Your task to perform on an android device: toggle improve location accuracy Image 0: 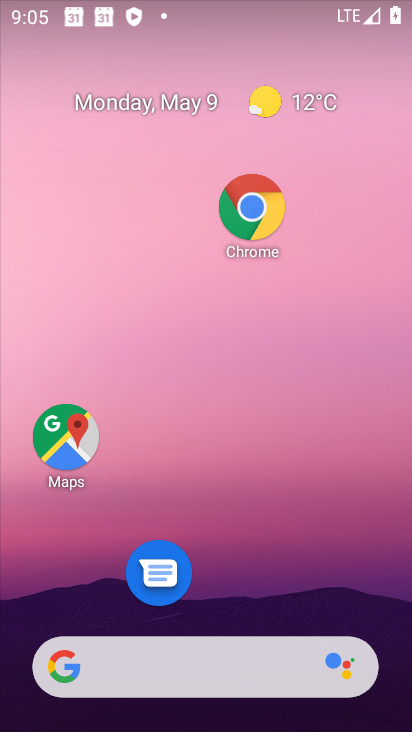
Step 0: click (282, 59)
Your task to perform on an android device: toggle improve location accuracy Image 1: 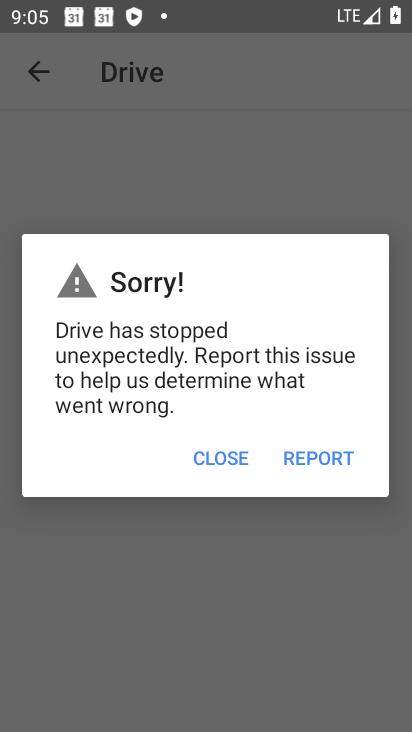
Step 1: press home button
Your task to perform on an android device: toggle improve location accuracy Image 2: 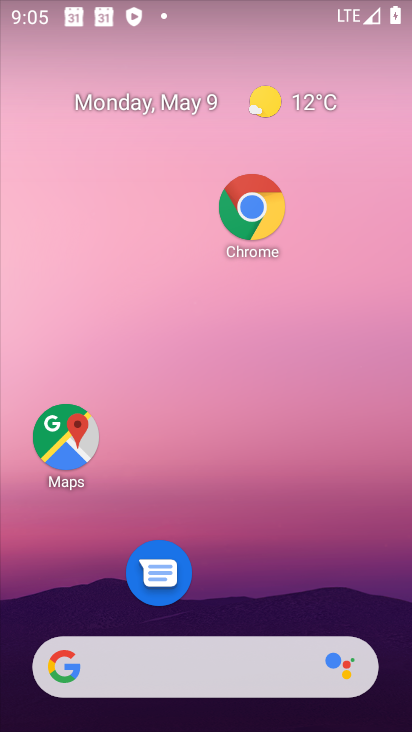
Step 2: drag from (263, 593) to (328, 121)
Your task to perform on an android device: toggle improve location accuracy Image 3: 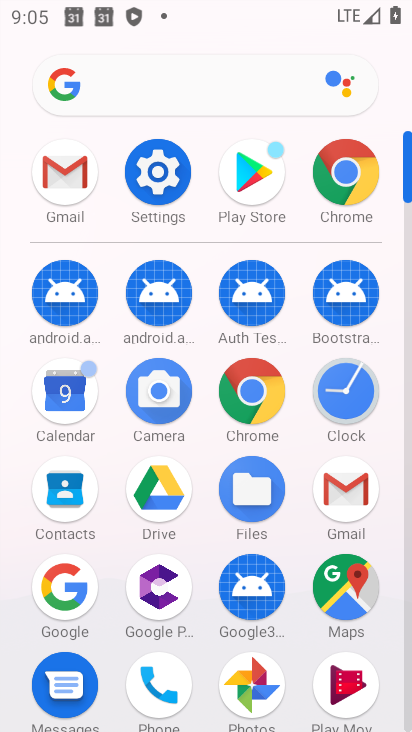
Step 3: click (146, 194)
Your task to perform on an android device: toggle improve location accuracy Image 4: 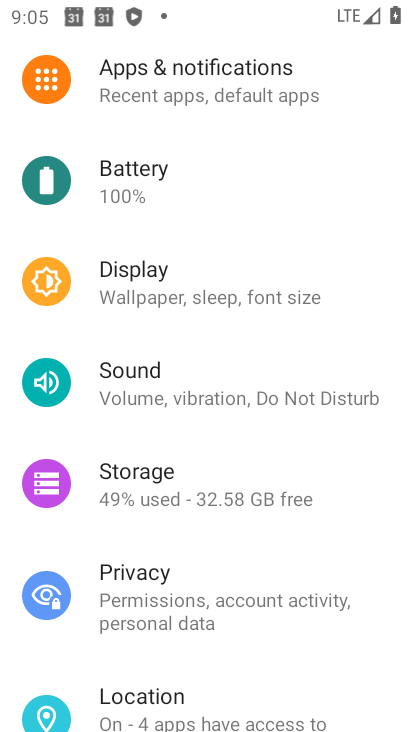
Step 4: drag from (279, 567) to (289, 313)
Your task to perform on an android device: toggle improve location accuracy Image 5: 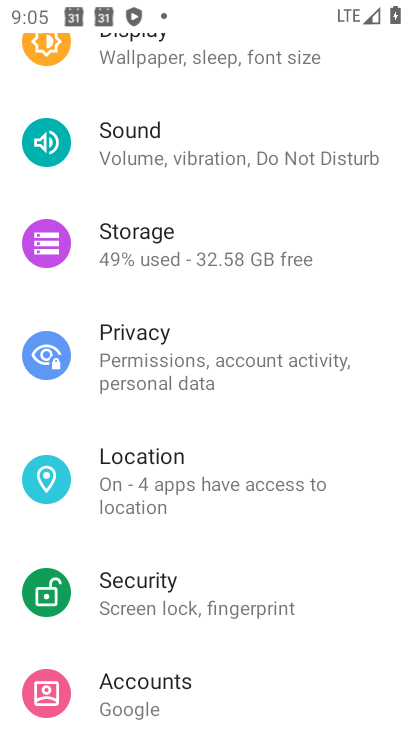
Step 5: click (253, 483)
Your task to perform on an android device: toggle improve location accuracy Image 6: 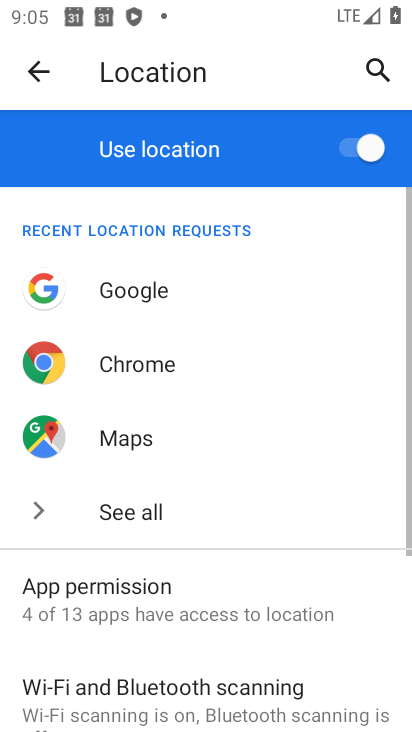
Step 6: drag from (263, 611) to (257, 398)
Your task to perform on an android device: toggle improve location accuracy Image 7: 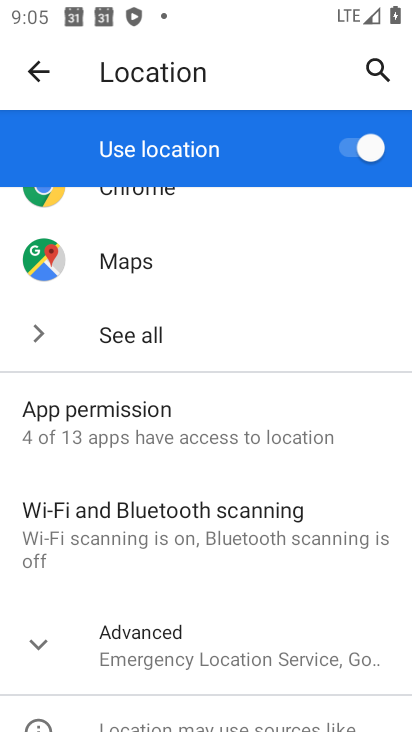
Step 7: click (265, 672)
Your task to perform on an android device: toggle improve location accuracy Image 8: 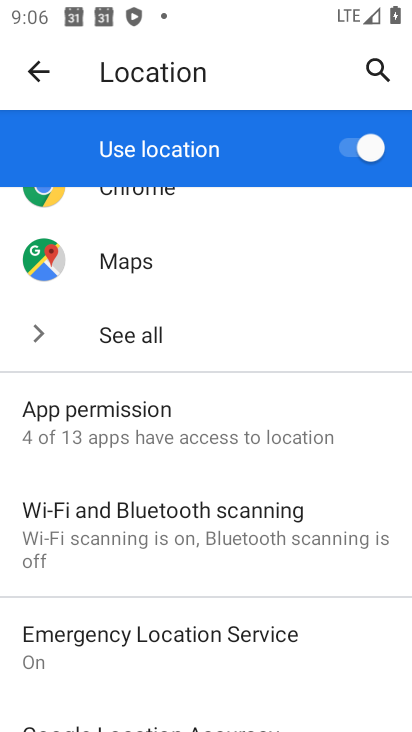
Step 8: drag from (281, 544) to (271, 418)
Your task to perform on an android device: toggle improve location accuracy Image 9: 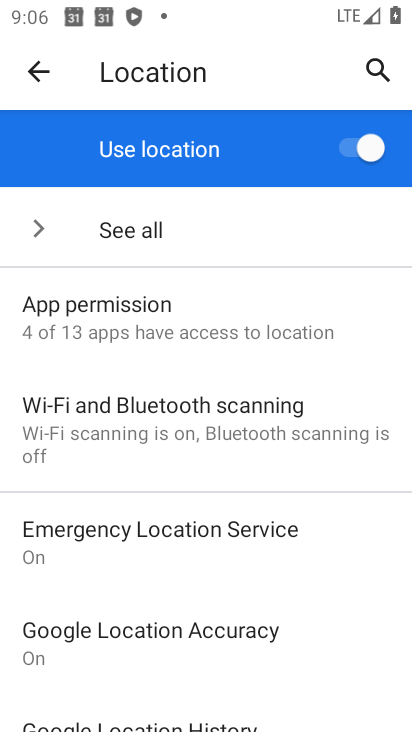
Step 9: click (273, 653)
Your task to perform on an android device: toggle improve location accuracy Image 10: 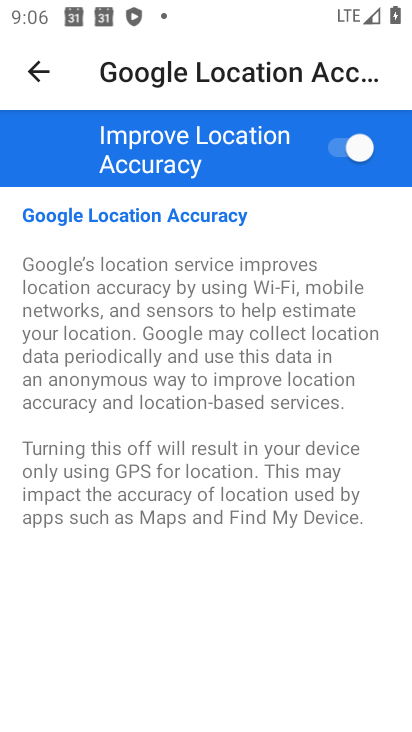
Step 10: click (339, 137)
Your task to perform on an android device: toggle improve location accuracy Image 11: 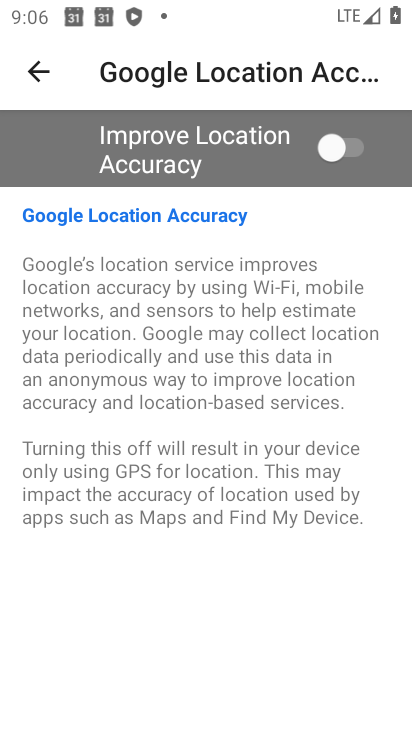
Step 11: task complete